Your task to perform on an android device: Open Wikipedia Image 0: 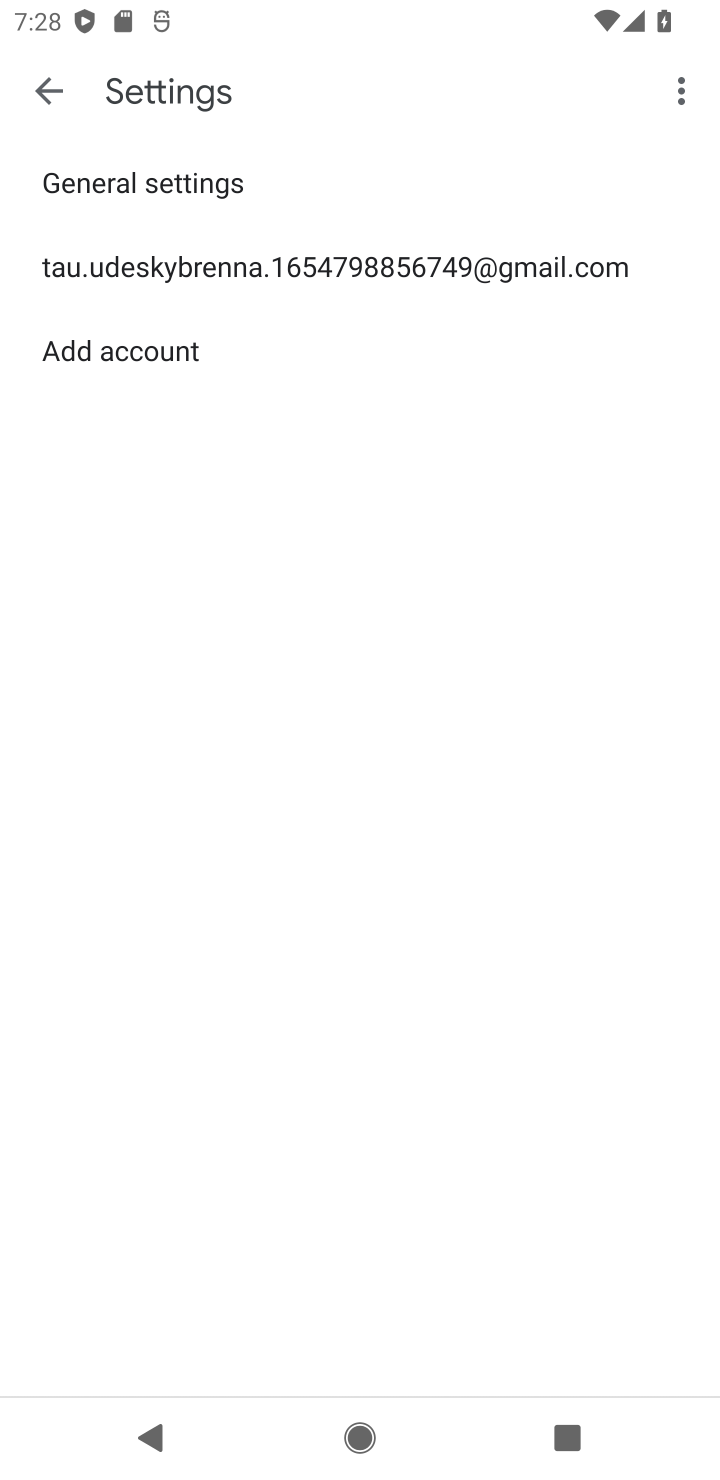
Step 0: press home button
Your task to perform on an android device: Open Wikipedia Image 1: 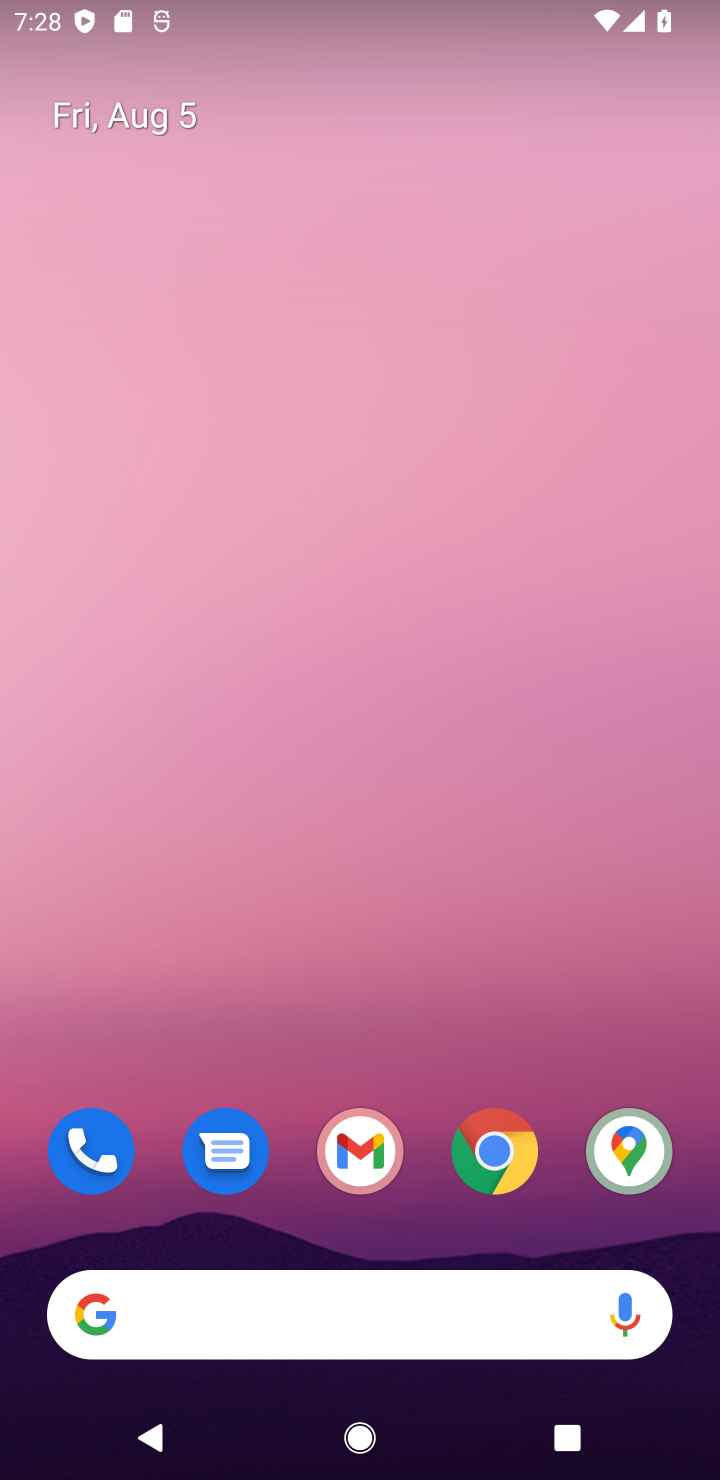
Step 1: click (479, 1160)
Your task to perform on an android device: Open Wikipedia Image 2: 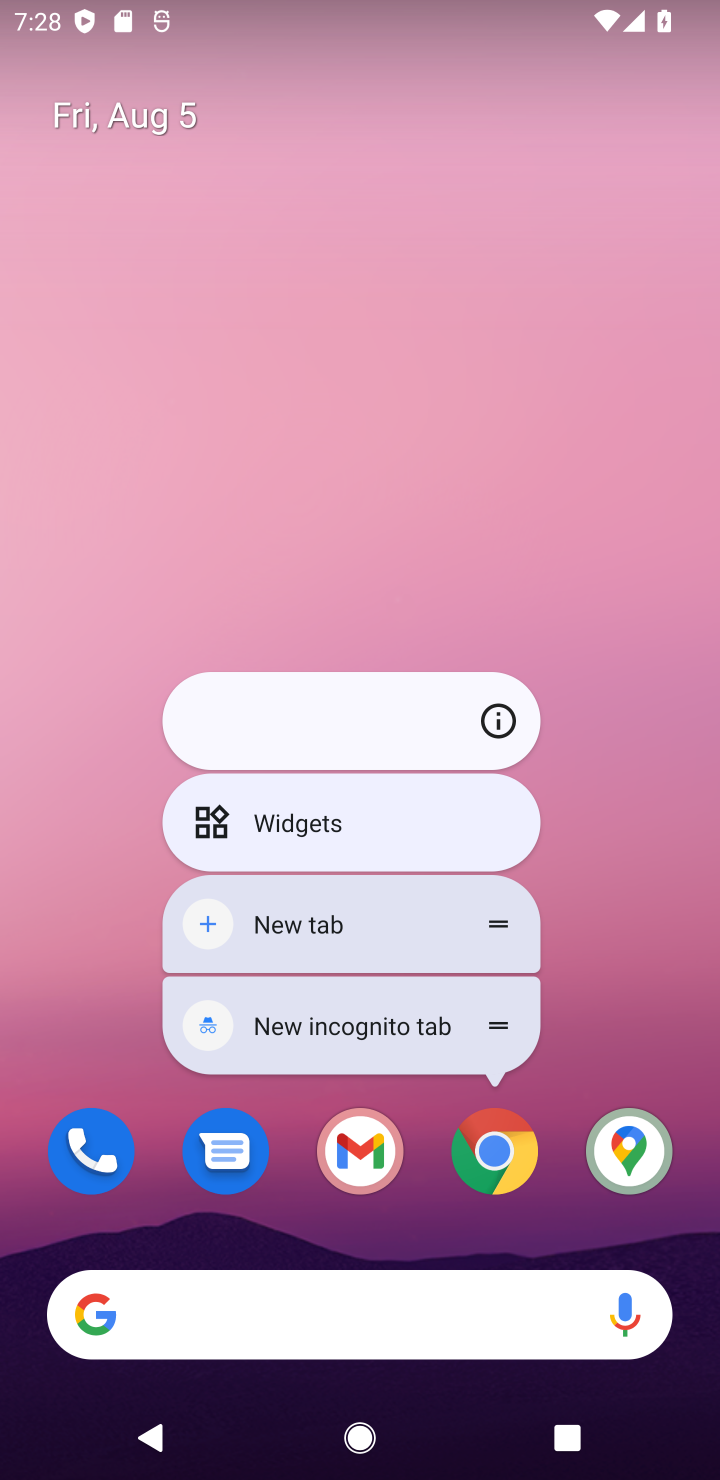
Step 2: click (486, 1132)
Your task to perform on an android device: Open Wikipedia Image 3: 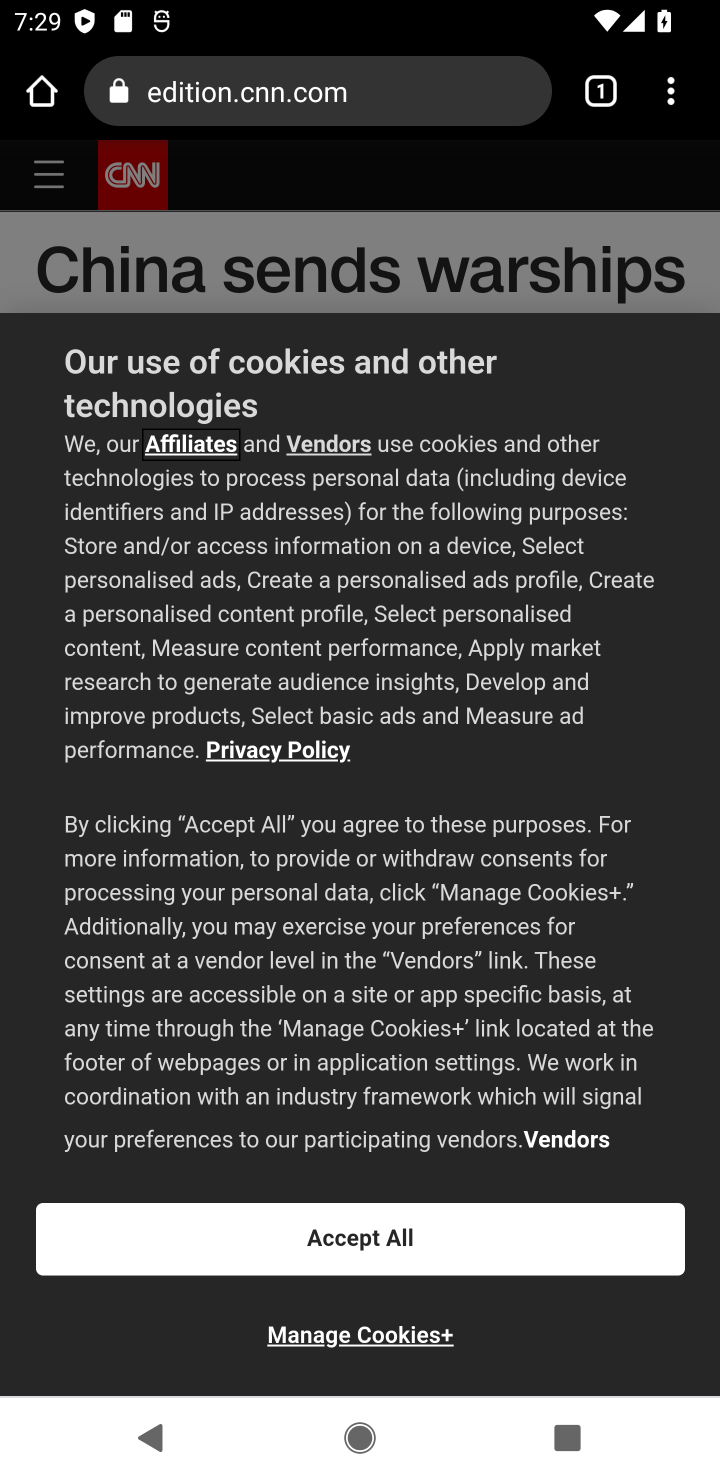
Step 3: click (601, 90)
Your task to perform on an android device: Open Wikipedia Image 4: 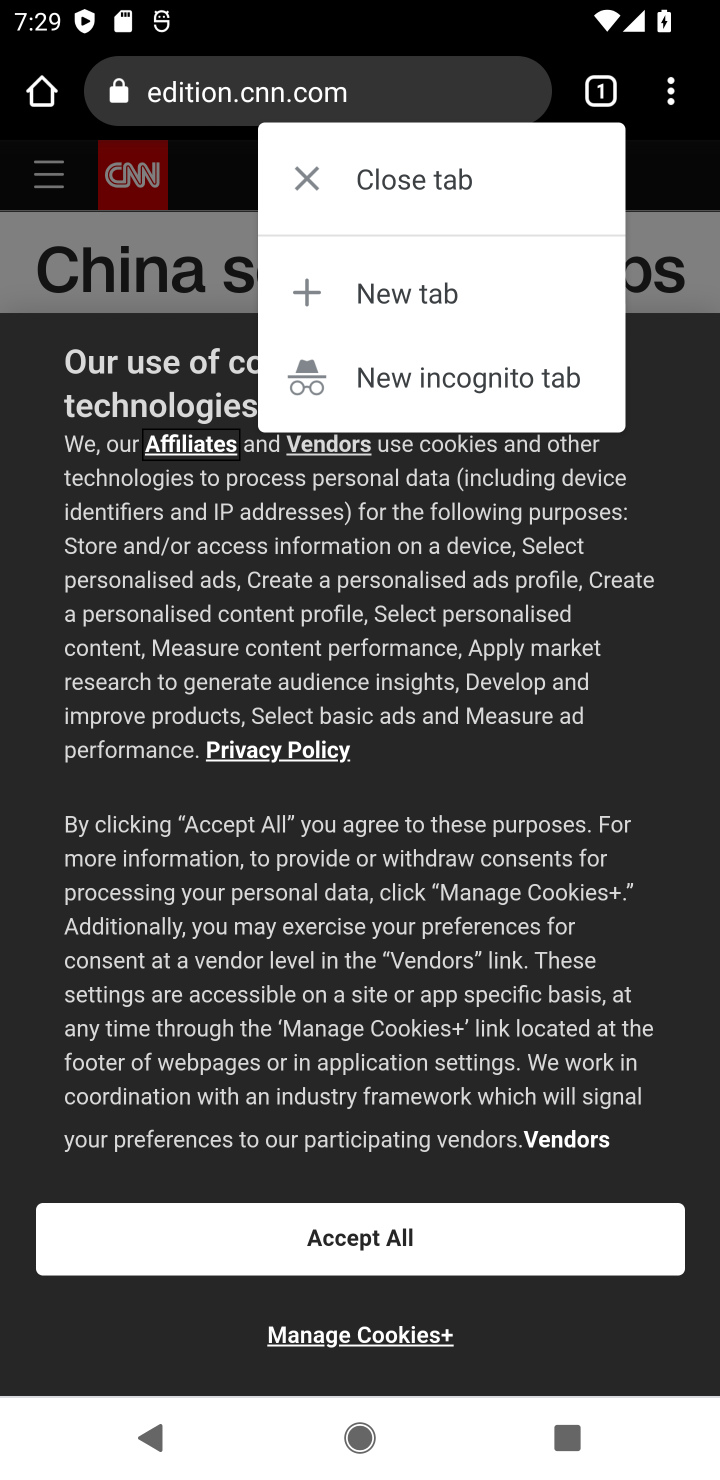
Step 4: click (447, 281)
Your task to perform on an android device: Open Wikipedia Image 5: 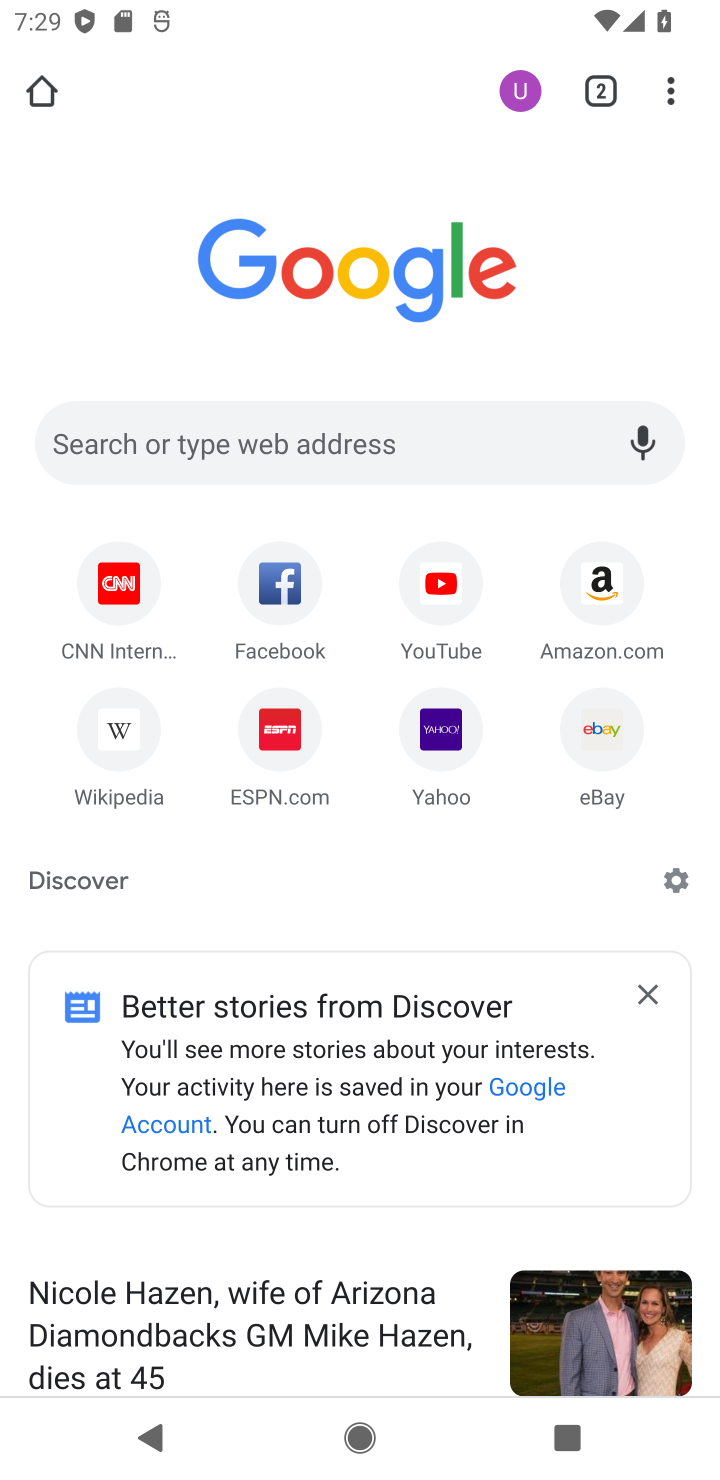
Step 5: click (114, 739)
Your task to perform on an android device: Open Wikipedia Image 6: 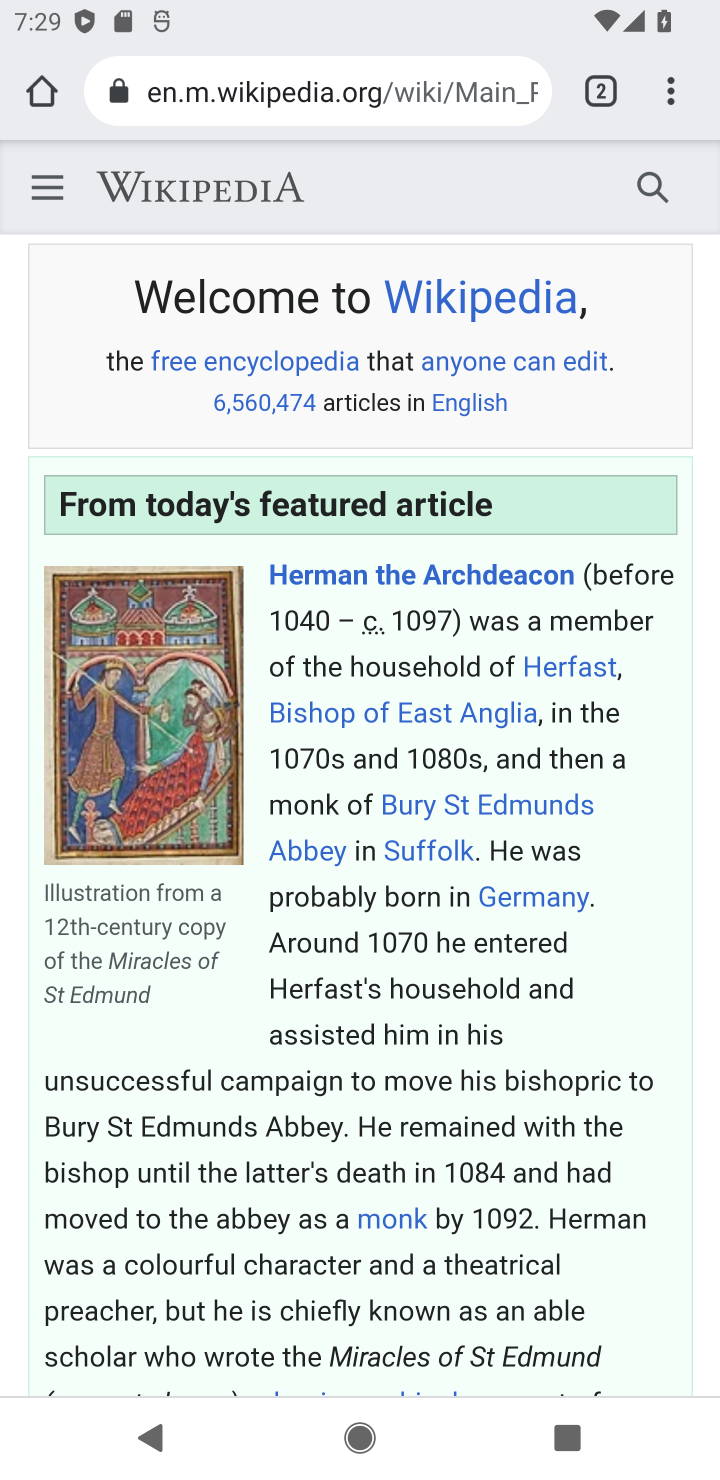
Step 6: task complete